Your task to perform on an android device: Open my contact list Image 0: 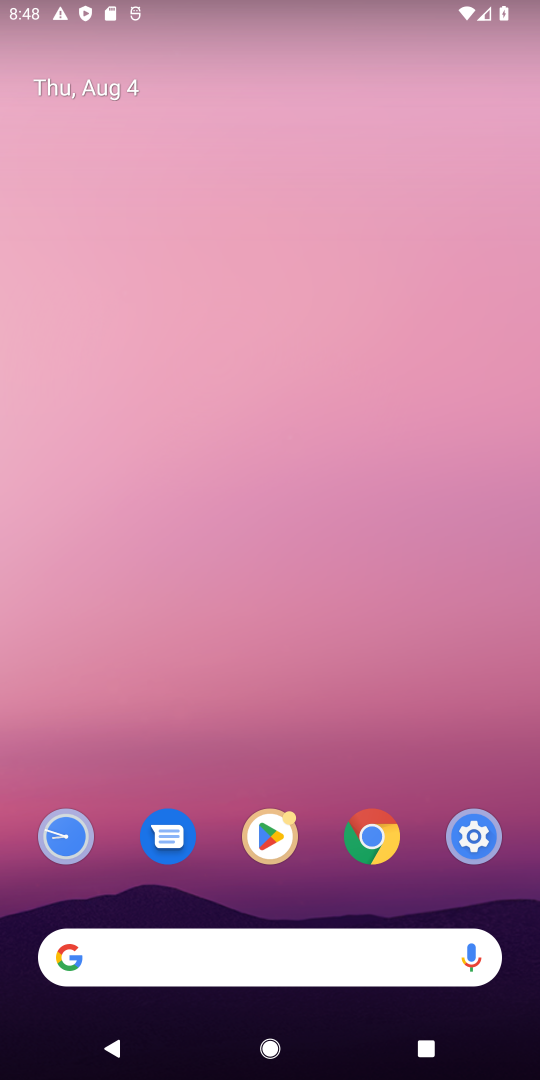
Step 0: drag from (224, 530) to (286, 37)
Your task to perform on an android device: Open my contact list Image 1: 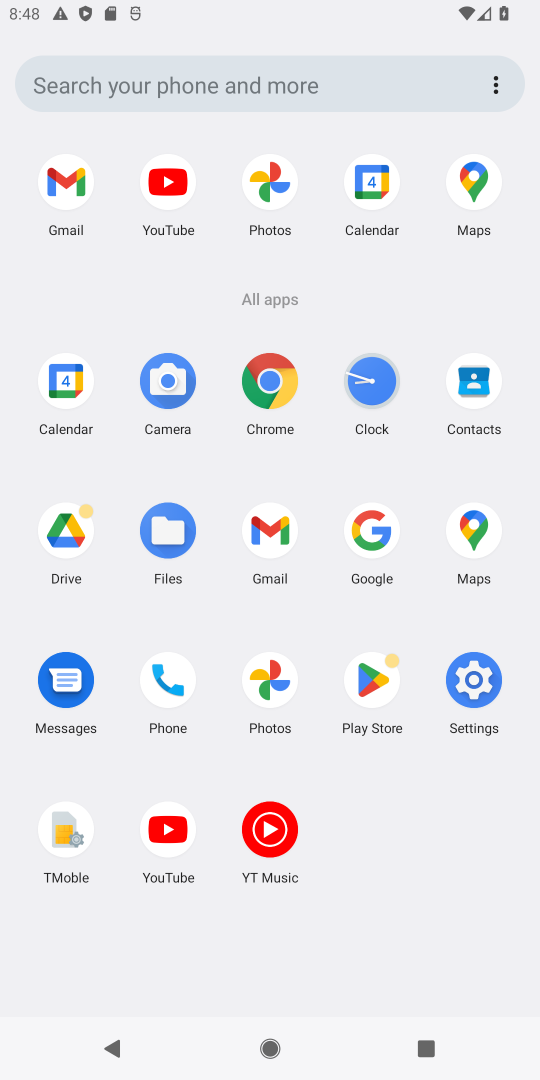
Step 1: click (461, 374)
Your task to perform on an android device: Open my contact list Image 2: 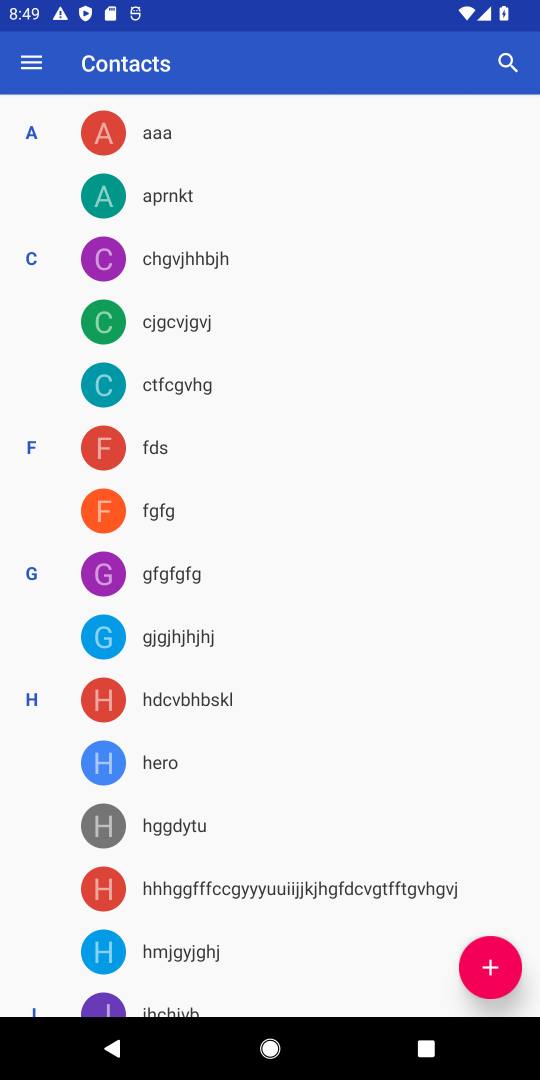
Step 2: task complete